Your task to perform on an android device: open app "Truecaller" (install if not already installed) Image 0: 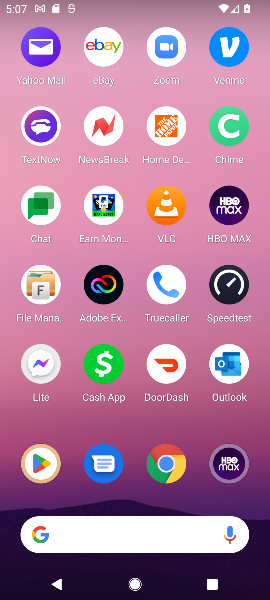
Step 0: press home button
Your task to perform on an android device: open app "Truecaller" (install if not already installed) Image 1: 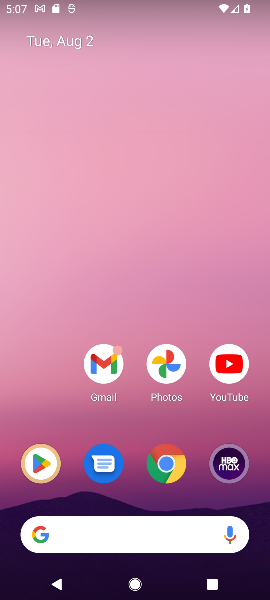
Step 1: click (43, 457)
Your task to perform on an android device: open app "Truecaller" (install if not already installed) Image 2: 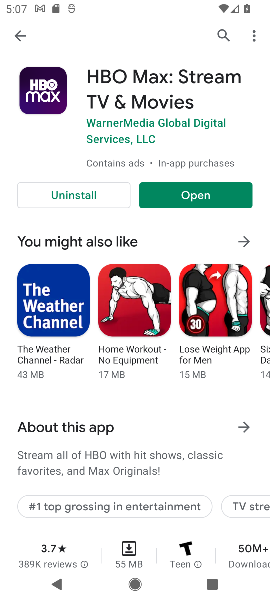
Step 2: click (216, 33)
Your task to perform on an android device: open app "Truecaller" (install if not already installed) Image 3: 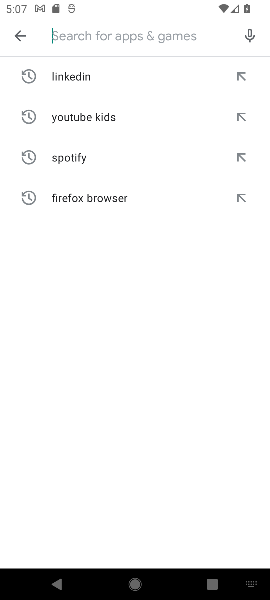
Step 3: type "Truecaller"
Your task to perform on an android device: open app "Truecaller" (install if not already installed) Image 4: 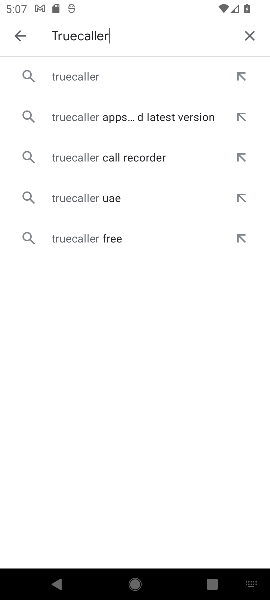
Step 4: click (91, 77)
Your task to perform on an android device: open app "Truecaller" (install if not already installed) Image 5: 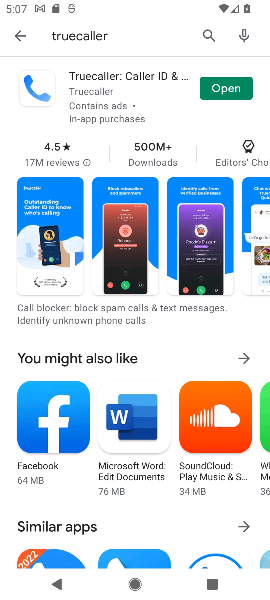
Step 5: click (223, 92)
Your task to perform on an android device: open app "Truecaller" (install if not already installed) Image 6: 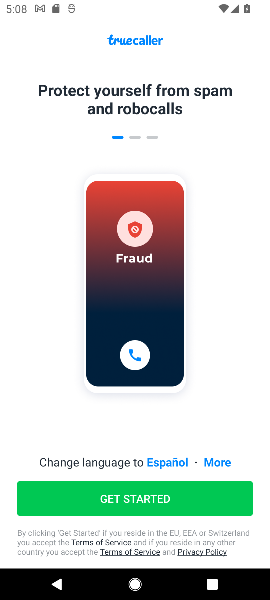
Step 6: task complete